Your task to perform on an android device: turn on improve location accuracy Image 0: 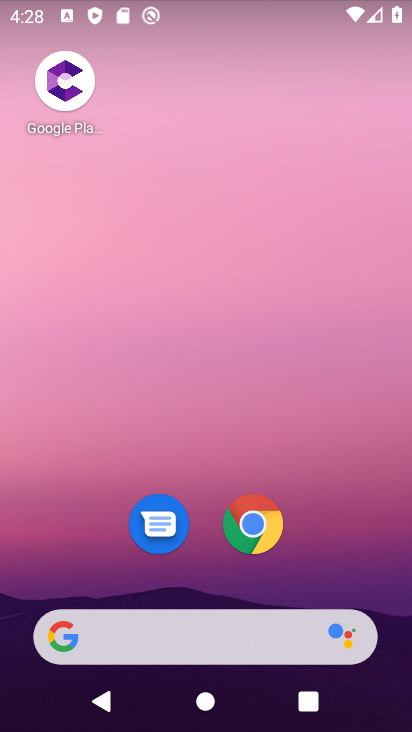
Step 0: drag from (325, 497) to (322, 2)
Your task to perform on an android device: turn on improve location accuracy Image 1: 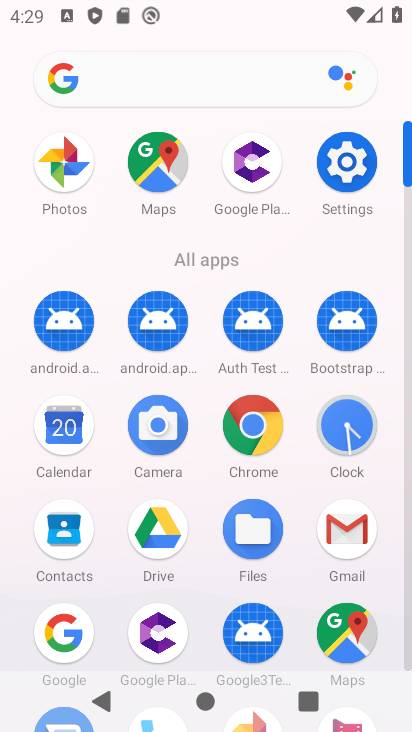
Step 1: click (347, 162)
Your task to perform on an android device: turn on improve location accuracy Image 2: 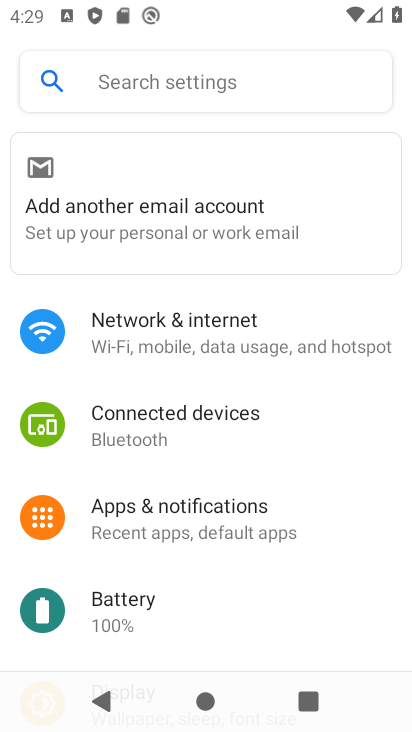
Step 2: drag from (218, 606) to (266, 0)
Your task to perform on an android device: turn on improve location accuracy Image 3: 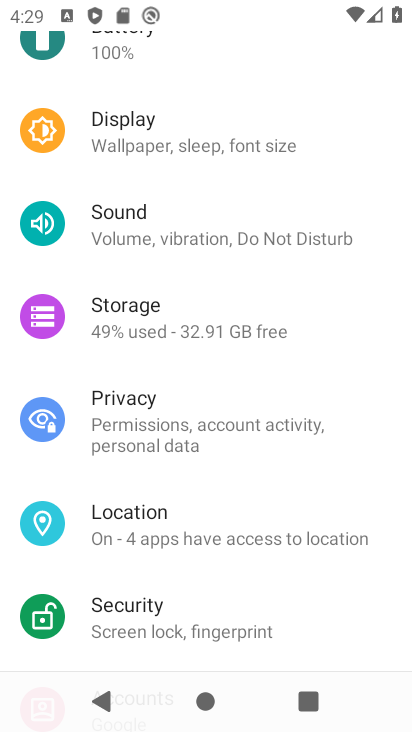
Step 3: click (237, 534)
Your task to perform on an android device: turn on improve location accuracy Image 4: 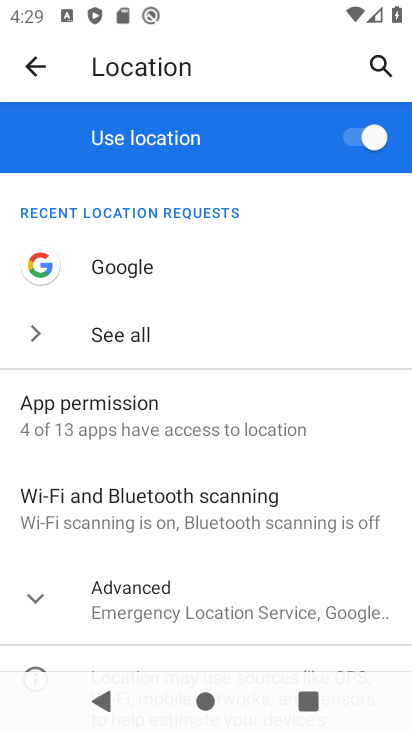
Step 4: click (39, 598)
Your task to perform on an android device: turn on improve location accuracy Image 5: 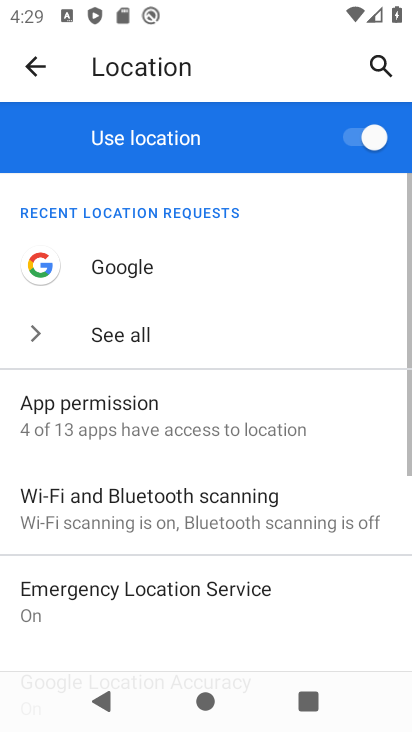
Step 5: drag from (223, 489) to (256, 136)
Your task to perform on an android device: turn on improve location accuracy Image 6: 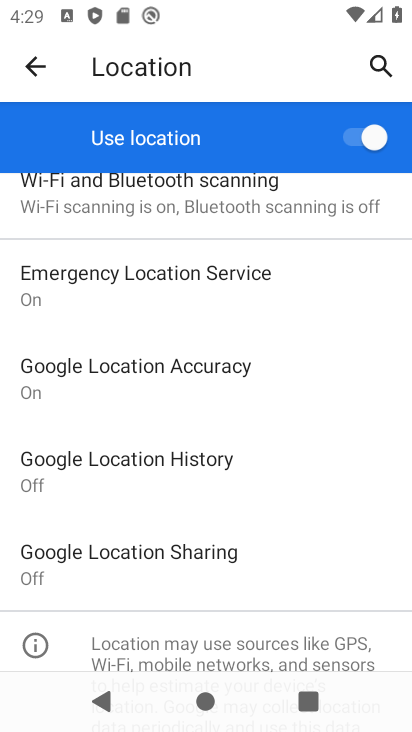
Step 6: click (196, 373)
Your task to perform on an android device: turn on improve location accuracy Image 7: 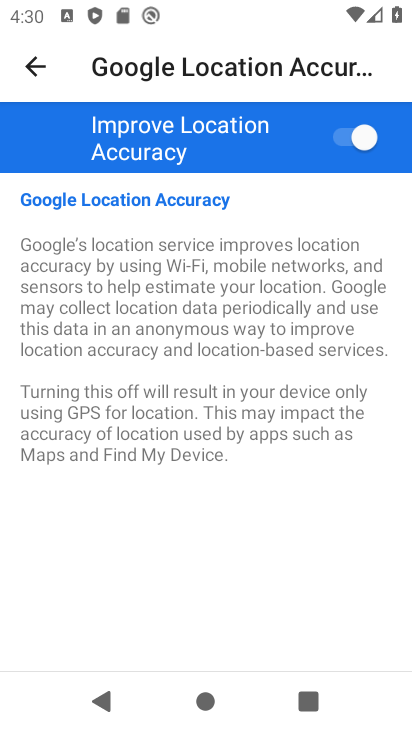
Step 7: task complete